Your task to perform on an android device: set the stopwatch Image 0: 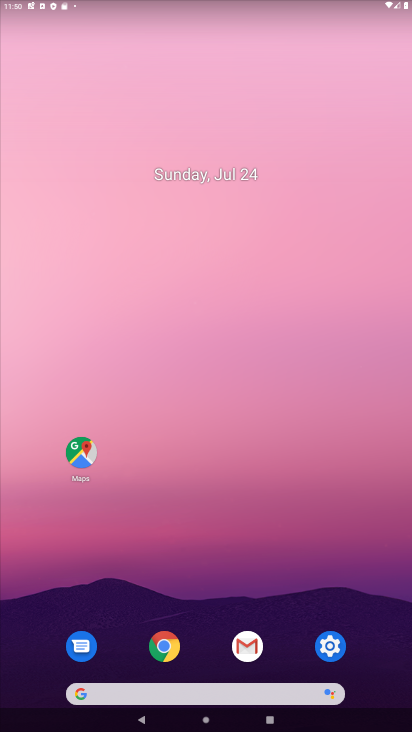
Step 0: drag from (277, 702) to (339, 109)
Your task to perform on an android device: set the stopwatch Image 1: 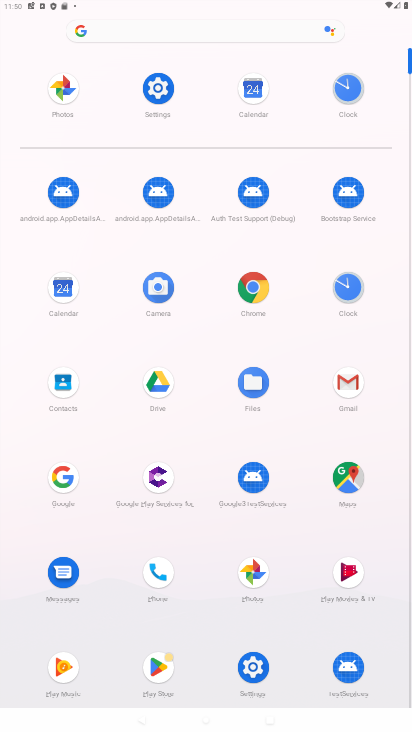
Step 1: click (339, 95)
Your task to perform on an android device: set the stopwatch Image 2: 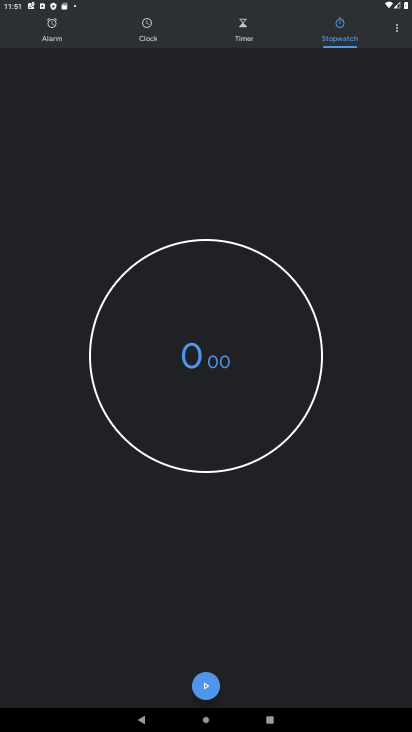
Step 2: click (214, 686)
Your task to perform on an android device: set the stopwatch Image 3: 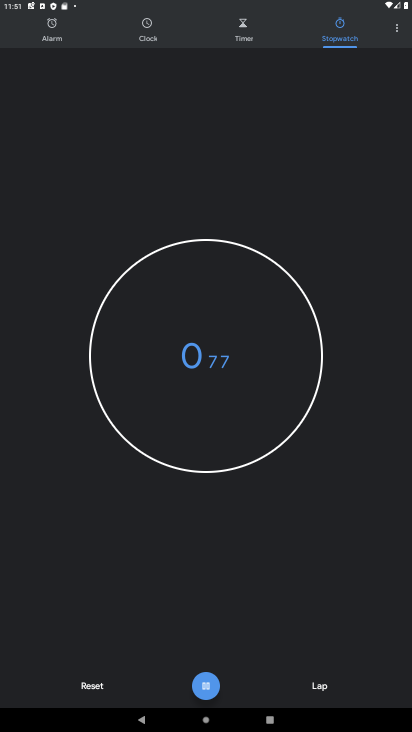
Step 3: click (214, 686)
Your task to perform on an android device: set the stopwatch Image 4: 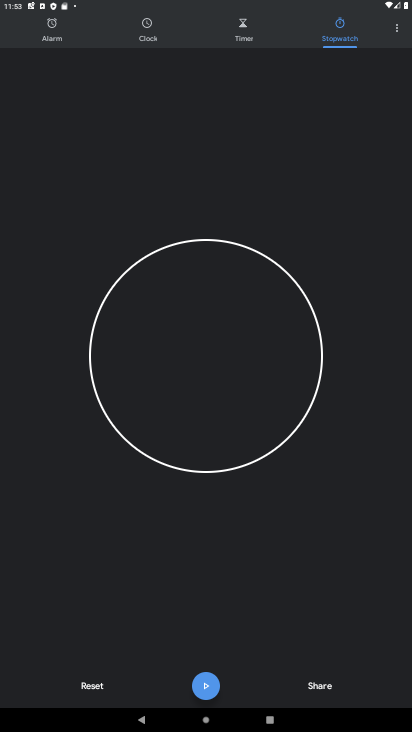
Step 4: task complete